Your task to perform on an android device: find snoozed emails in the gmail app Image 0: 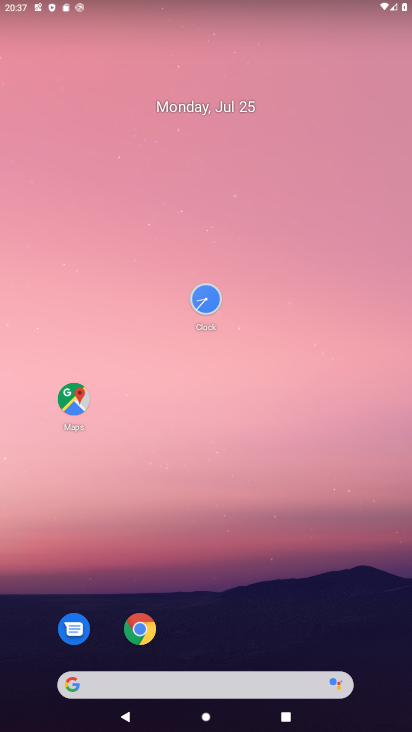
Step 0: drag from (232, 650) to (264, 188)
Your task to perform on an android device: find snoozed emails in the gmail app Image 1: 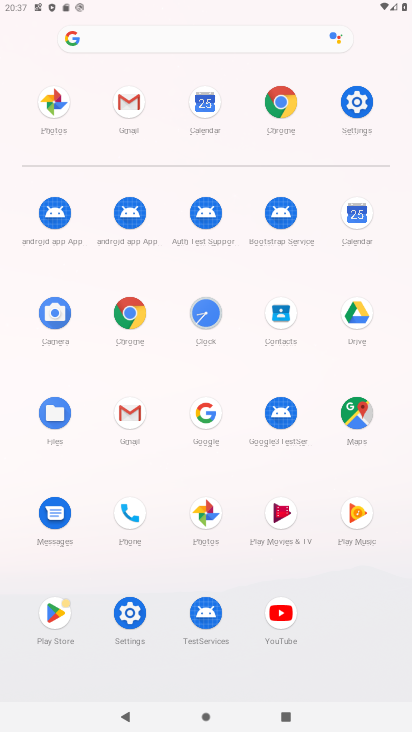
Step 1: click (130, 426)
Your task to perform on an android device: find snoozed emails in the gmail app Image 2: 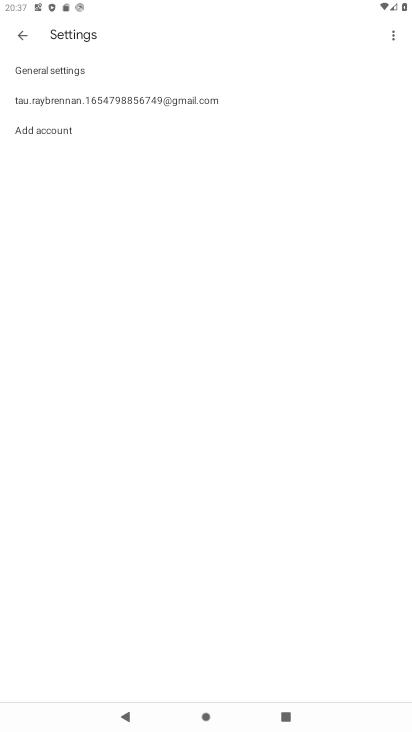
Step 2: click (23, 30)
Your task to perform on an android device: find snoozed emails in the gmail app Image 3: 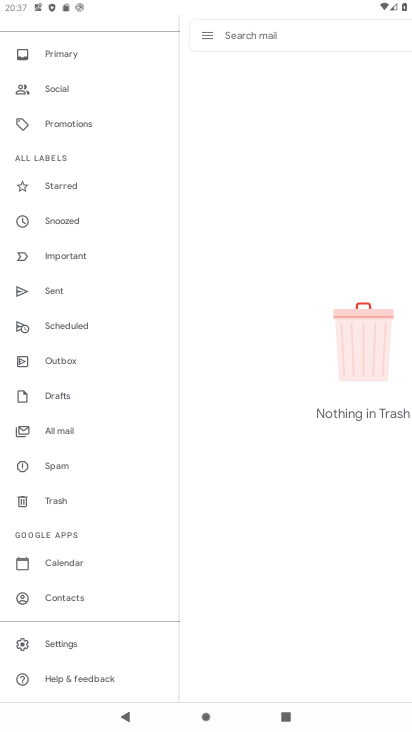
Step 3: click (72, 220)
Your task to perform on an android device: find snoozed emails in the gmail app Image 4: 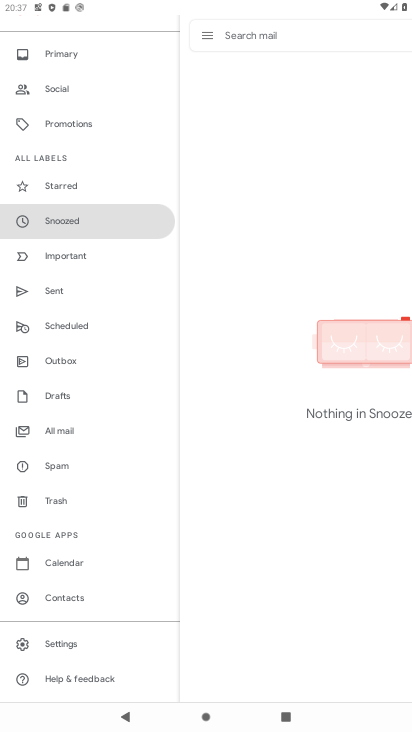
Step 4: task complete